Your task to perform on an android device: When is my next meeting? Image 0: 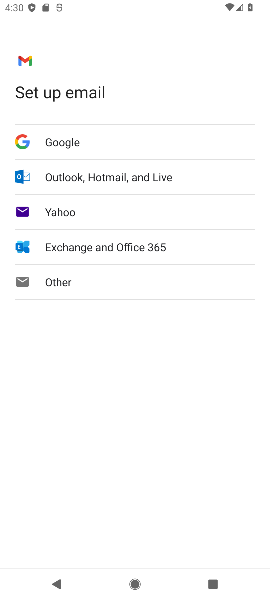
Step 0: press home button
Your task to perform on an android device: When is my next meeting? Image 1: 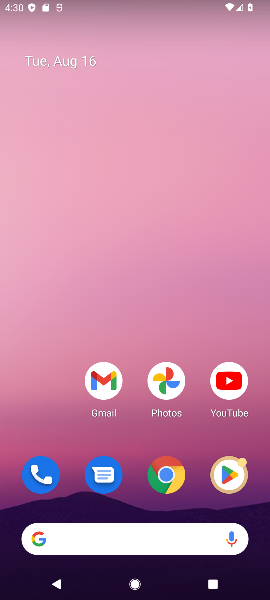
Step 1: drag from (255, 503) to (85, 31)
Your task to perform on an android device: When is my next meeting? Image 2: 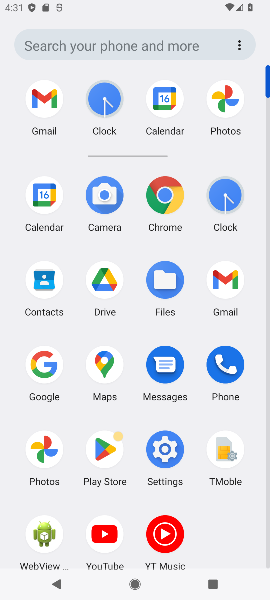
Step 2: click (41, 213)
Your task to perform on an android device: When is my next meeting? Image 3: 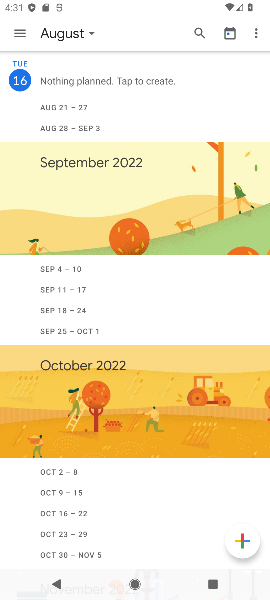
Step 3: task complete